Your task to perform on an android device: Go to battery settings Image 0: 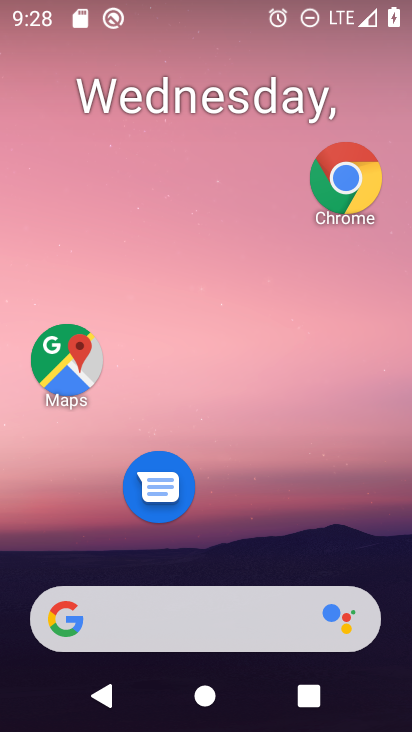
Step 0: drag from (237, 582) to (257, 73)
Your task to perform on an android device: Go to battery settings Image 1: 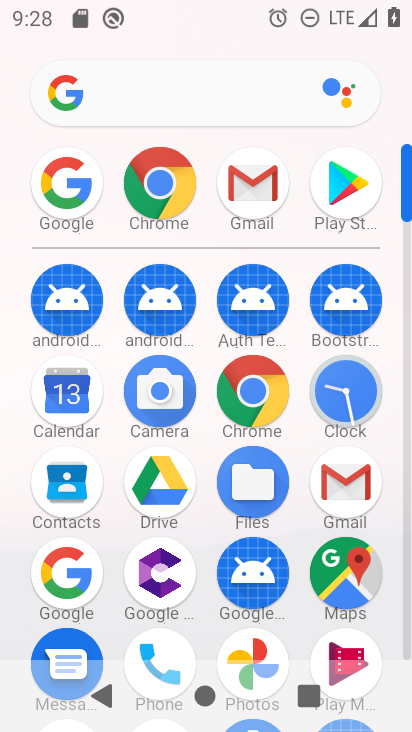
Step 1: drag from (237, 511) to (283, 119)
Your task to perform on an android device: Go to battery settings Image 2: 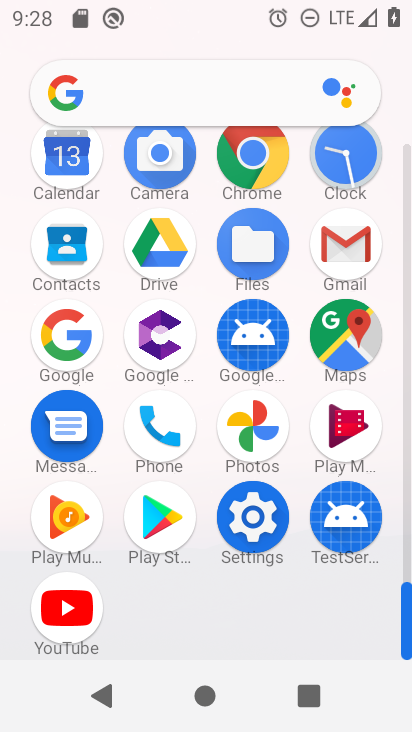
Step 2: click (261, 558)
Your task to perform on an android device: Go to battery settings Image 3: 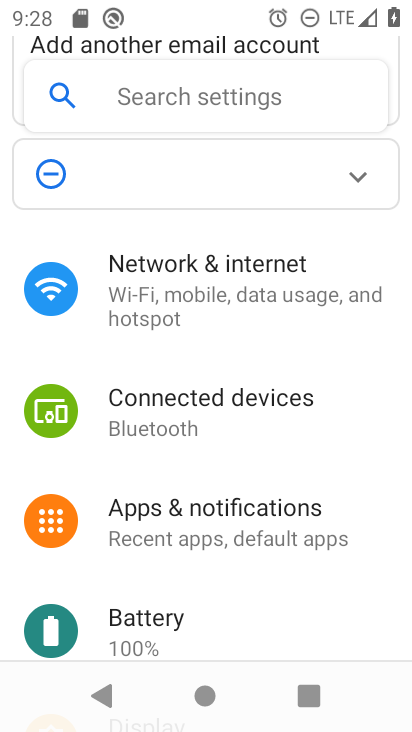
Step 3: drag from (246, 556) to (292, 321)
Your task to perform on an android device: Go to battery settings Image 4: 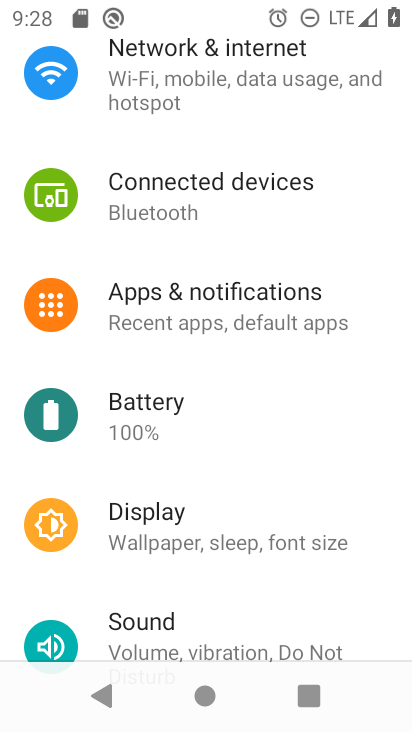
Step 4: click (241, 409)
Your task to perform on an android device: Go to battery settings Image 5: 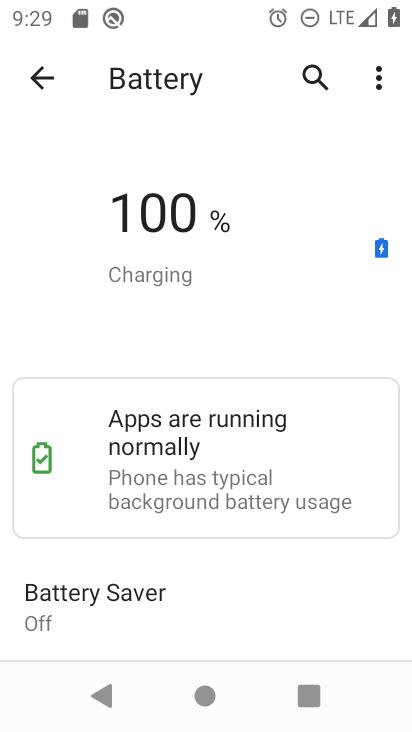
Step 5: task complete